Your task to perform on an android device: Go to privacy settings Image 0: 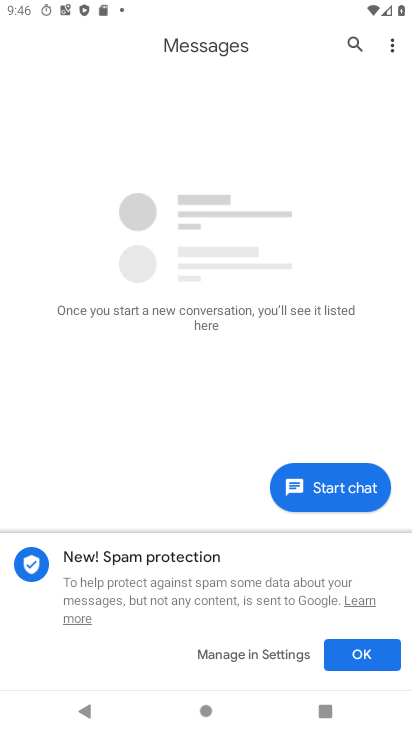
Step 0: press home button
Your task to perform on an android device: Go to privacy settings Image 1: 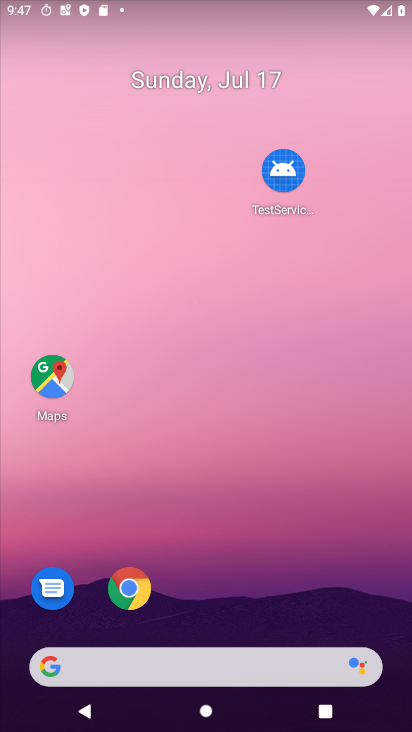
Step 1: drag from (244, 446) to (323, 25)
Your task to perform on an android device: Go to privacy settings Image 2: 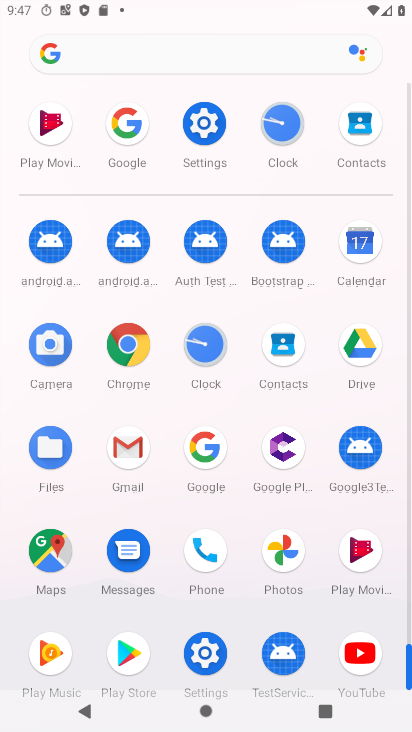
Step 2: click (208, 146)
Your task to perform on an android device: Go to privacy settings Image 3: 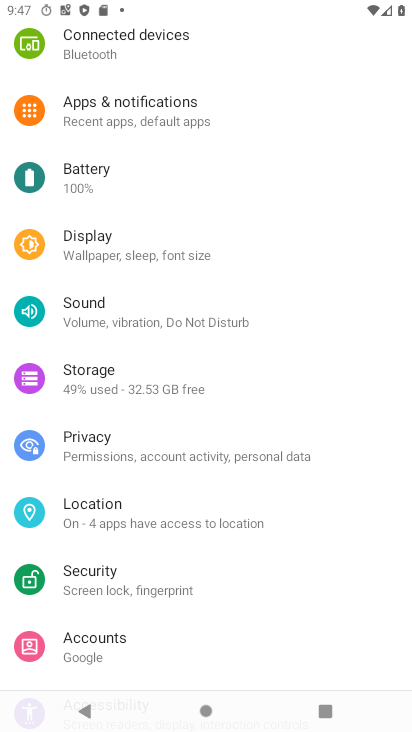
Step 3: click (131, 459)
Your task to perform on an android device: Go to privacy settings Image 4: 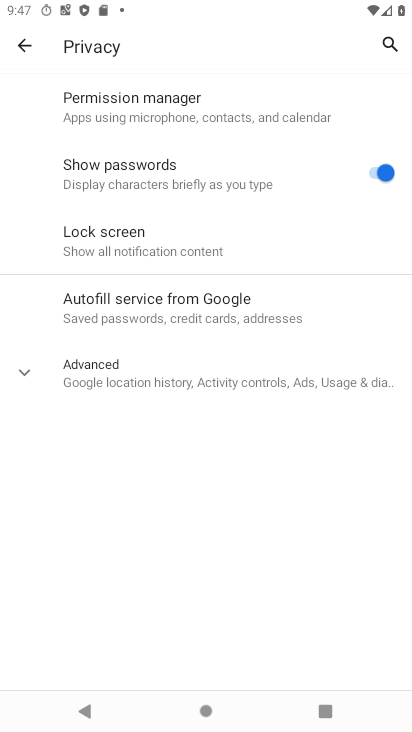
Step 4: task complete